Your task to perform on an android device: empty trash in google photos Image 0: 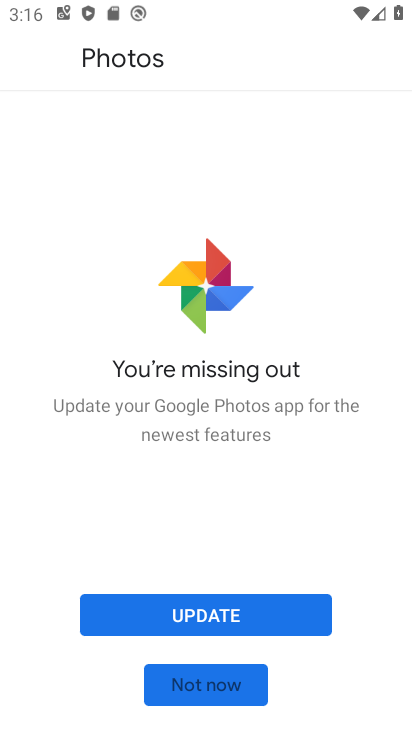
Step 0: press home button
Your task to perform on an android device: empty trash in google photos Image 1: 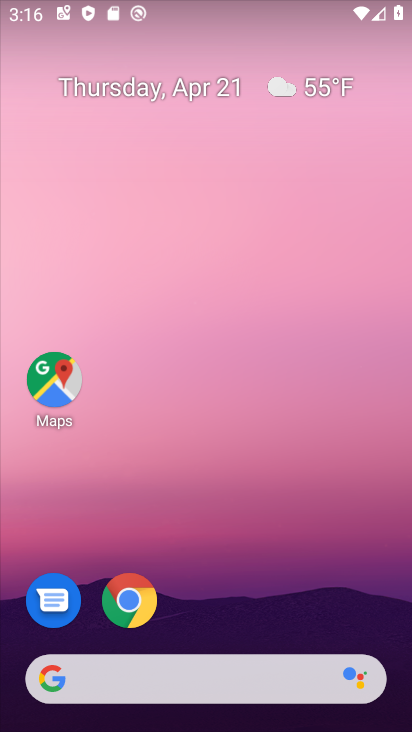
Step 1: drag from (144, 682) to (273, 109)
Your task to perform on an android device: empty trash in google photos Image 2: 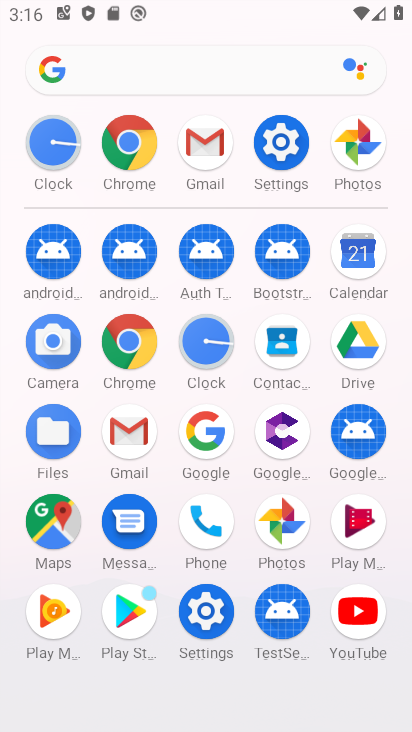
Step 2: click (281, 522)
Your task to perform on an android device: empty trash in google photos Image 3: 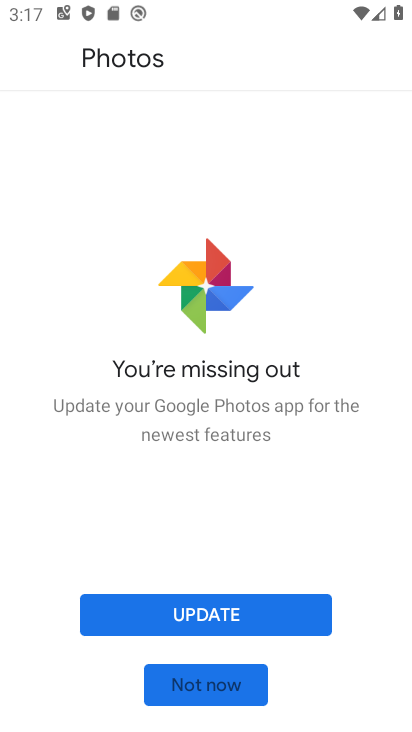
Step 3: click (217, 613)
Your task to perform on an android device: empty trash in google photos Image 4: 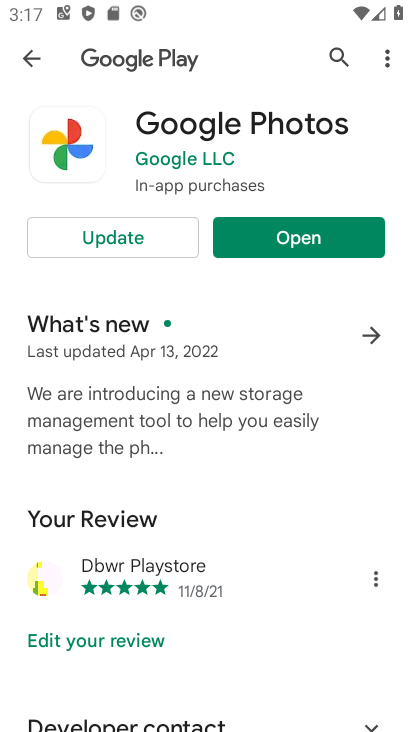
Step 4: click (274, 236)
Your task to perform on an android device: empty trash in google photos Image 5: 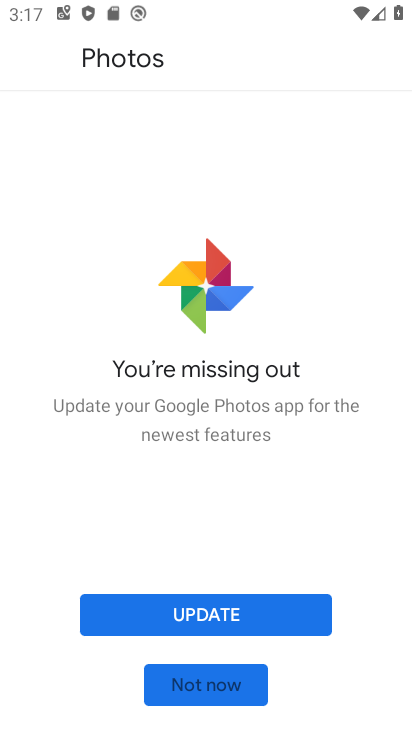
Step 5: click (219, 605)
Your task to perform on an android device: empty trash in google photos Image 6: 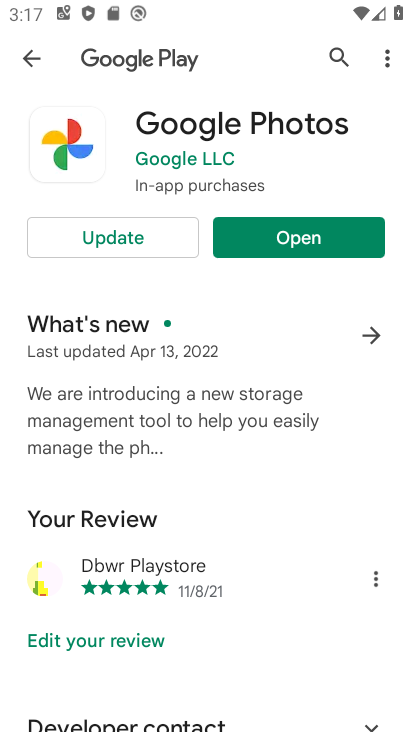
Step 6: click (287, 239)
Your task to perform on an android device: empty trash in google photos Image 7: 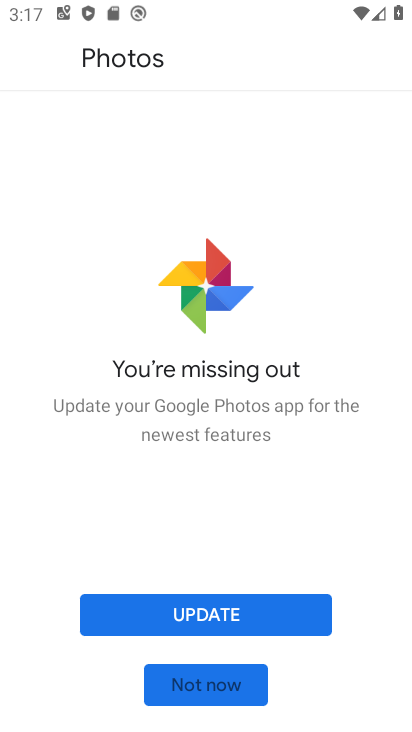
Step 7: click (191, 611)
Your task to perform on an android device: empty trash in google photos Image 8: 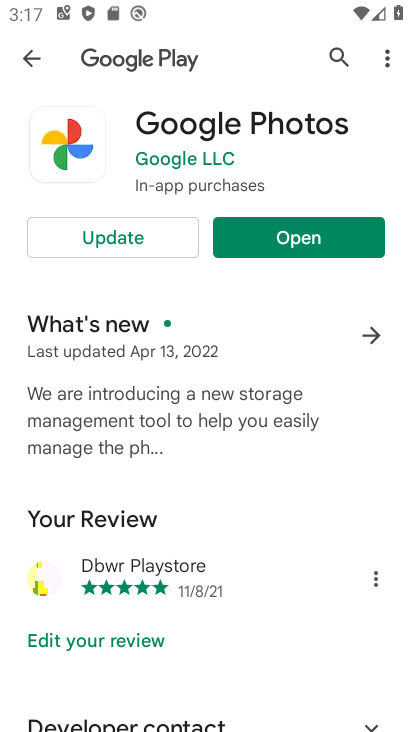
Step 8: click (127, 234)
Your task to perform on an android device: empty trash in google photos Image 9: 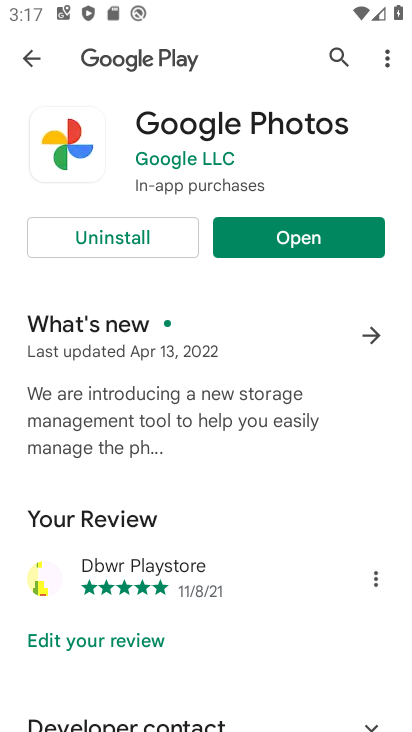
Step 9: click (299, 234)
Your task to perform on an android device: empty trash in google photos Image 10: 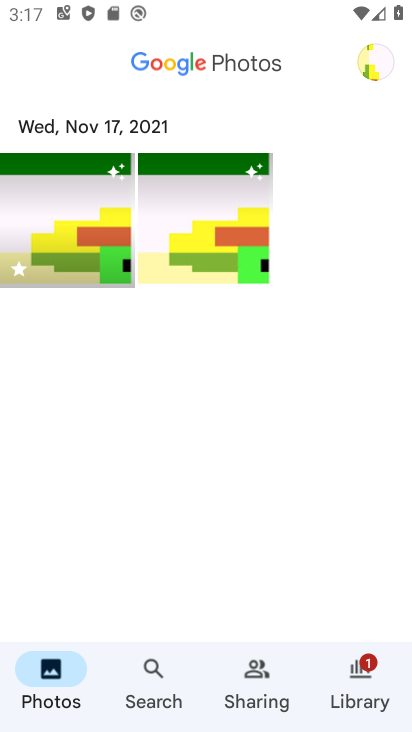
Step 10: click (372, 61)
Your task to perform on an android device: empty trash in google photos Image 11: 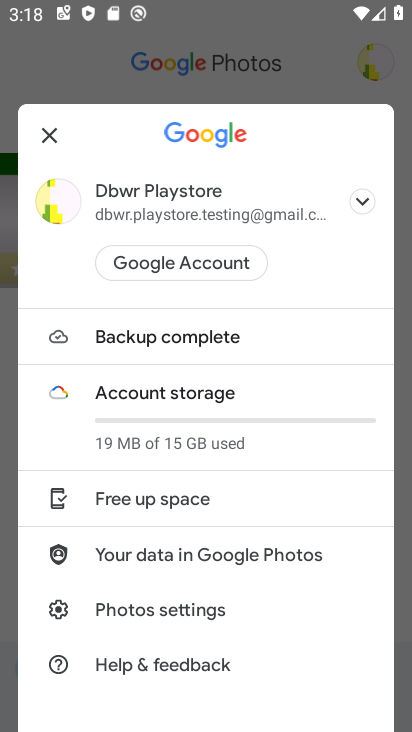
Step 11: task complete